Your task to perform on an android device: Go to network settings Image 0: 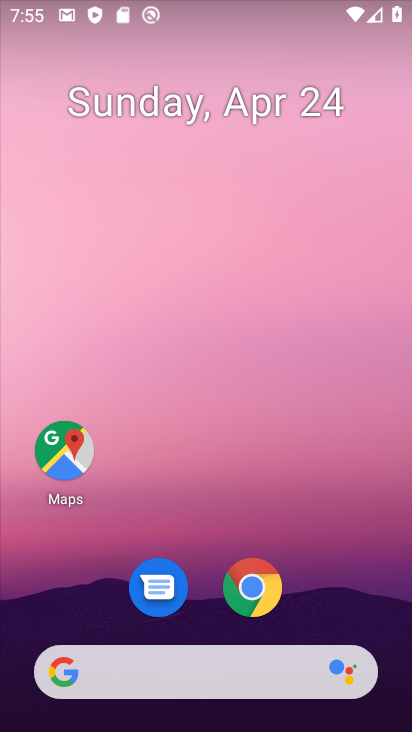
Step 0: drag from (362, 557) to (341, 255)
Your task to perform on an android device: Go to network settings Image 1: 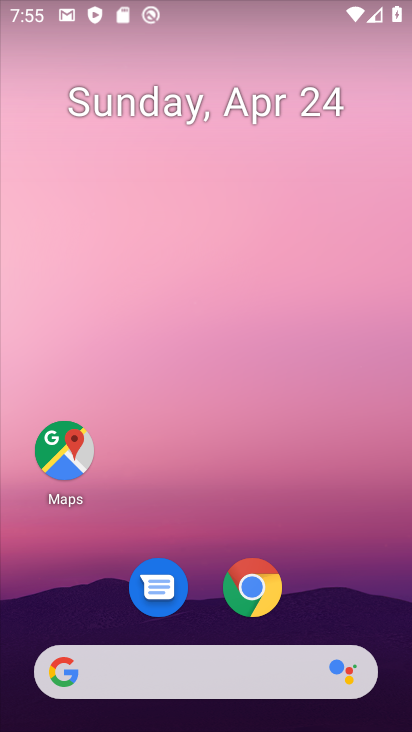
Step 1: drag from (351, 612) to (333, 99)
Your task to perform on an android device: Go to network settings Image 2: 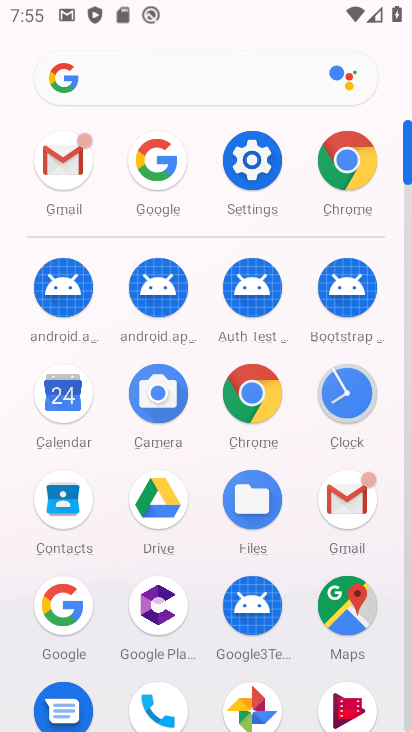
Step 2: click (254, 159)
Your task to perform on an android device: Go to network settings Image 3: 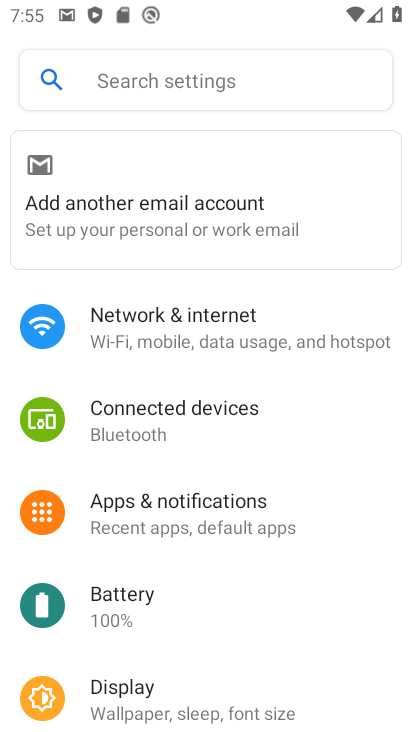
Step 3: click (98, 335)
Your task to perform on an android device: Go to network settings Image 4: 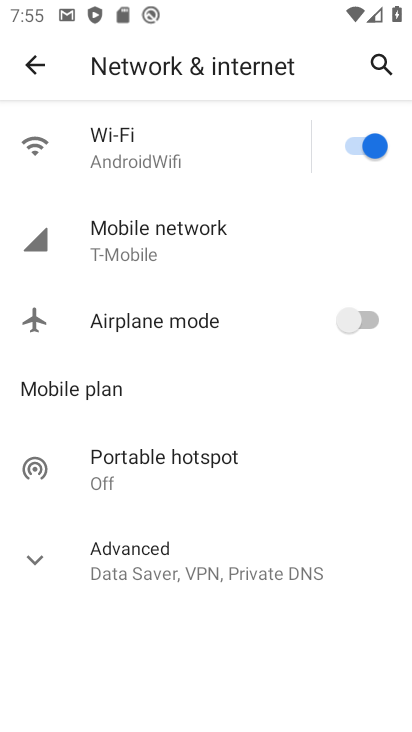
Step 4: click (188, 229)
Your task to perform on an android device: Go to network settings Image 5: 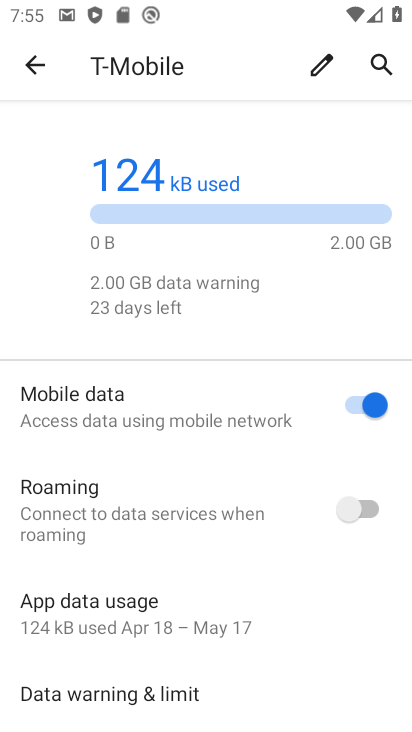
Step 5: task complete